Your task to perform on an android device: open a bookmark in the chrome app Image 0: 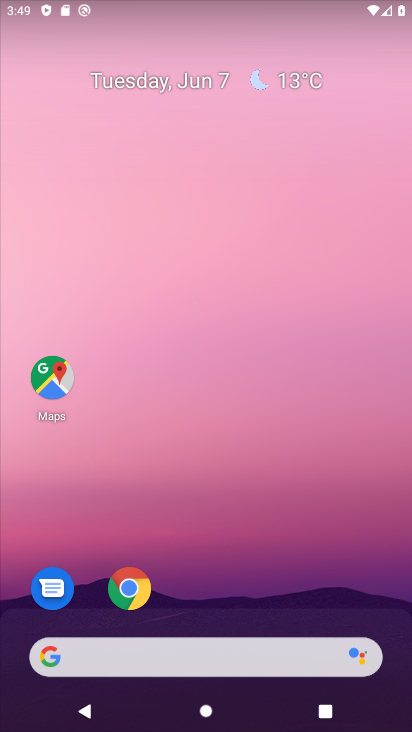
Step 0: click (152, 592)
Your task to perform on an android device: open a bookmark in the chrome app Image 1: 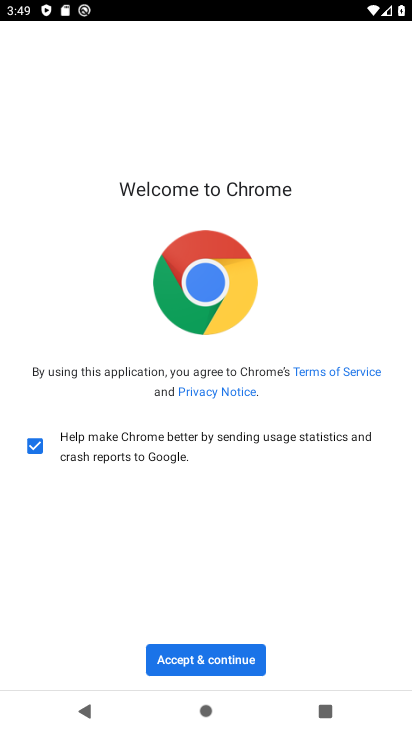
Step 1: click (237, 659)
Your task to perform on an android device: open a bookmark in the chrome app Image 2: 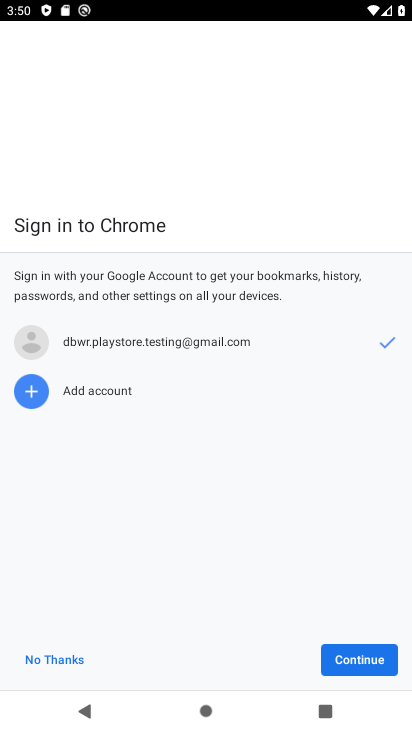
Step 2: click (326, 659)
Your task to perform on an android device: open a bookmark in the chrome app Image 3: 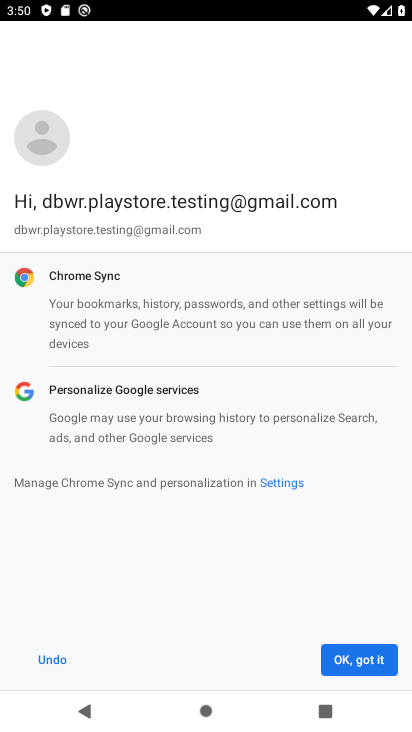
Step 3: click (381, 654)
Your task to perform on an android device: open a bookmark in the chrome app Image 4: 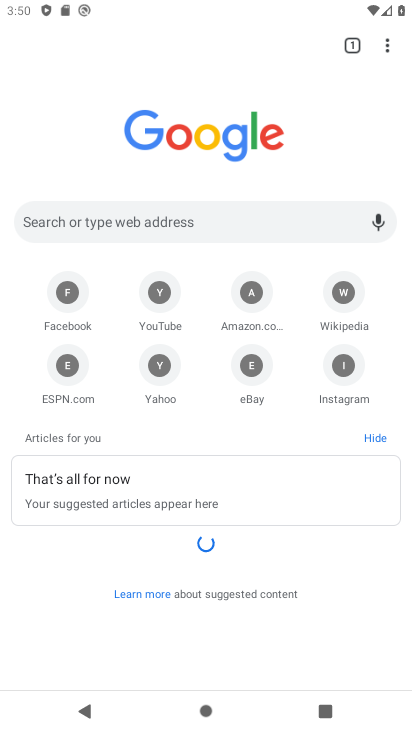
Step 4: click (387, 20)
Your task to perform on an android device: open a bookmark in the chrome app Image 5: 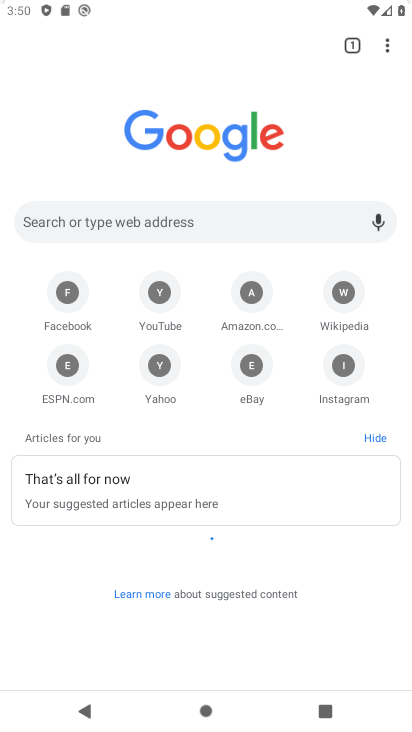
Step 5: task complete